Your task to perform on an android device: move an email to a new category in the gmail app Image 0: 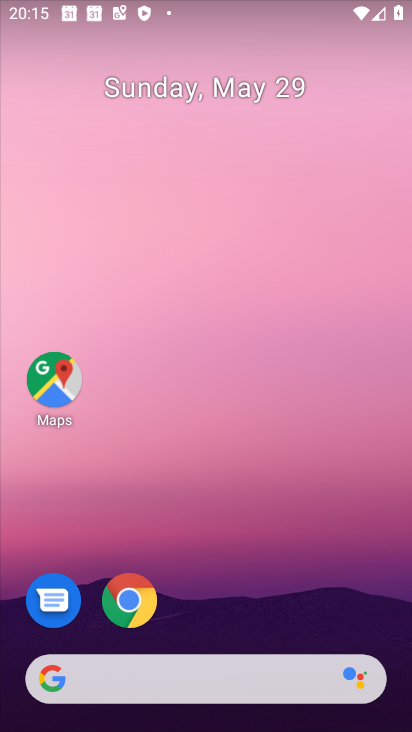
Step 0: drag from (309, 552) to (300, 73)
Your task to perform on an android device: move an email to a new category in the gmail app Image 1: 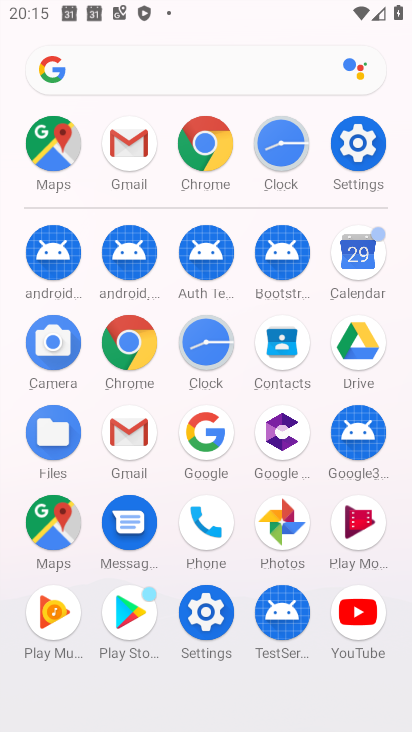
Step 1: click (135, 441)
Your task to perform on an android device: move an email to a new category in the gmail app Image 2: 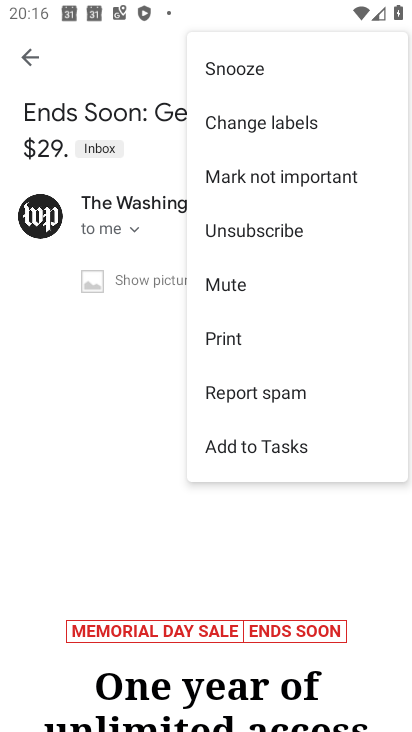
Step 2: task complete